Your task to perform on an android device: Search for Italian restaurants on Maps Image 0: 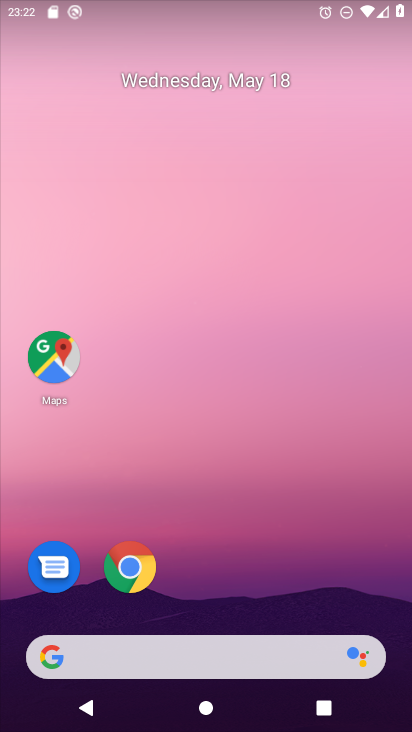
Step 0: drag from (333, 690) to (242, 105)
Your task to perform on an android device: Search for Italian restaurants on Maps Image 1: 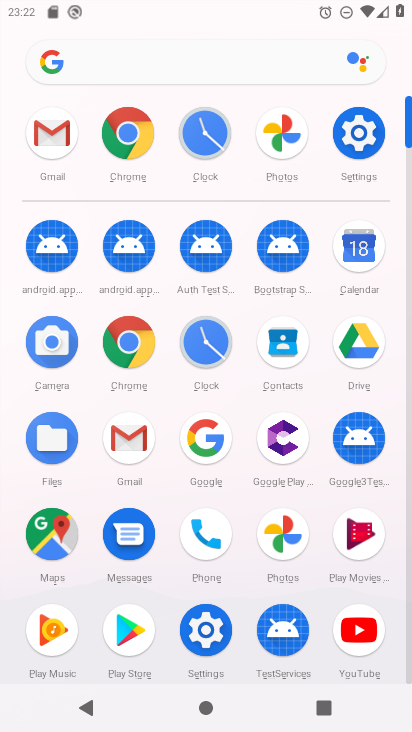
Step 1: click (56, 525)
Your task to perform on an android device: Search for Italian restaurants on Maps Image 2: 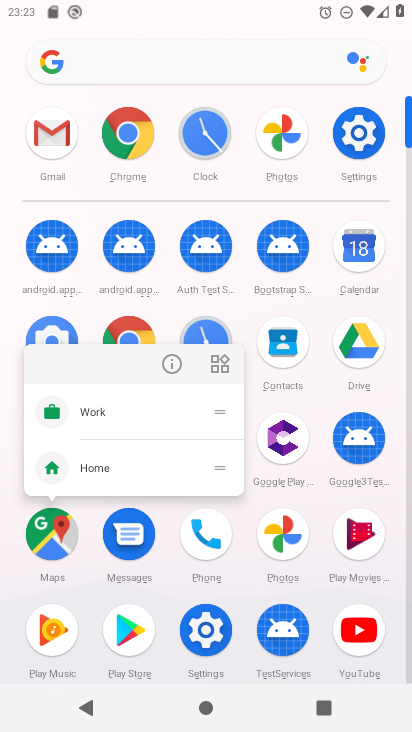
Step 2: click (34, 542)
Your task to perform on an android device: Search for Italian restaurants on Maps Image 3: 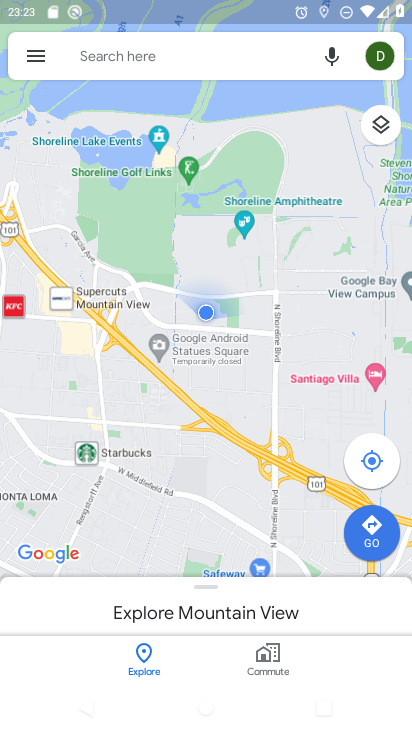
Step 3: click (107, 61)
Your task to perform on an android device: Search for Italian restaurants on Maps Image 4: 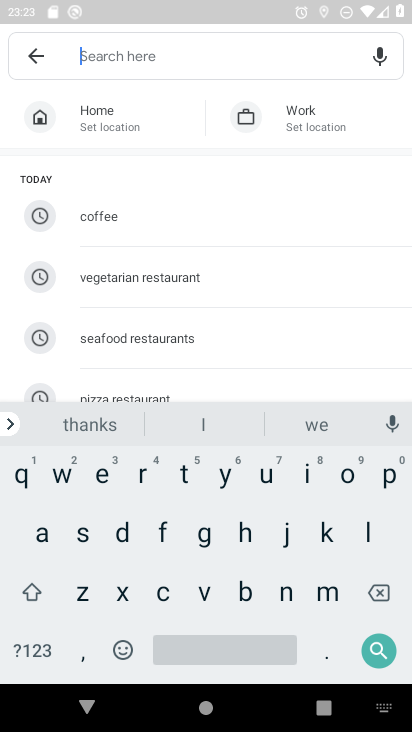
Step 4: click (309, 476)
Your task to perform on an android device: Search for Italian restaurants on Maps Image 5: 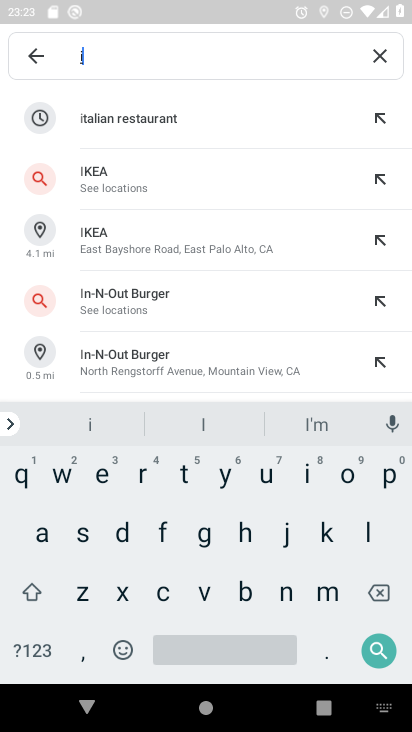
Step 5: click (161, 124)
Your task to perform on an android device: Search for Italian restaurants on Maps Image 6: 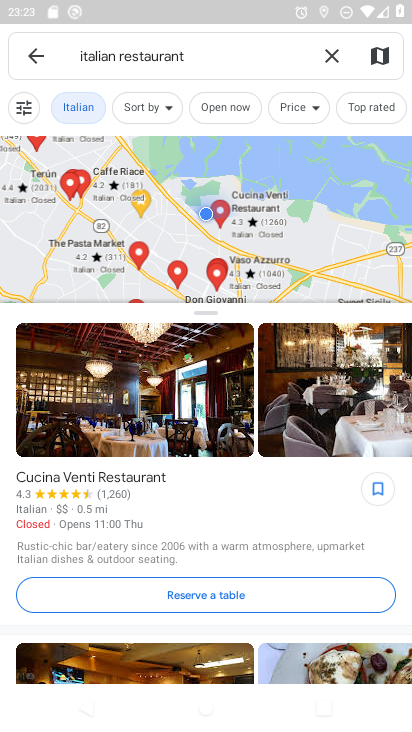
Step 6: click (69, 230)
Your task to perform on an android device: Search for Italian restaurants on Maps Image 7: 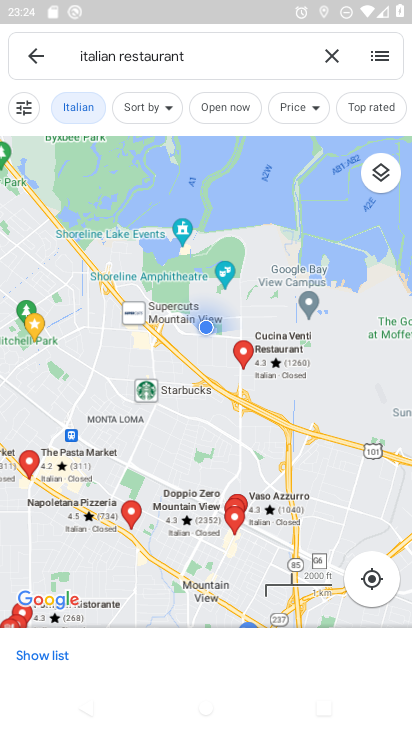
Step 7: task complete